Your task to perform on an android device: turn on notifications settings in the gmail app Image 0: 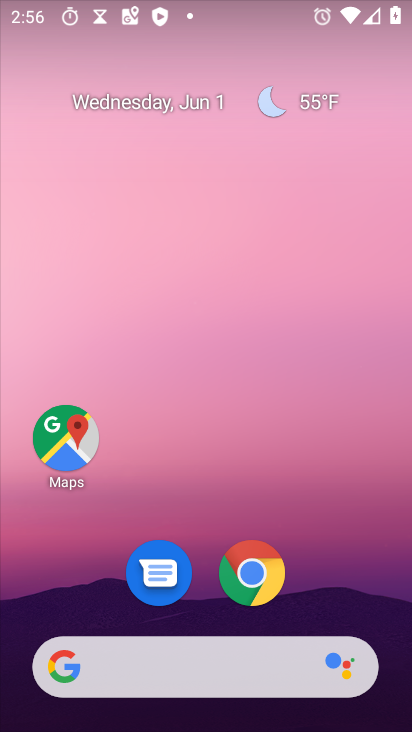
Step 0: drag from (343, 555) to (349, 19)
Your task to perform on an android device: turn on notifications settings in the gmail app Image 1: 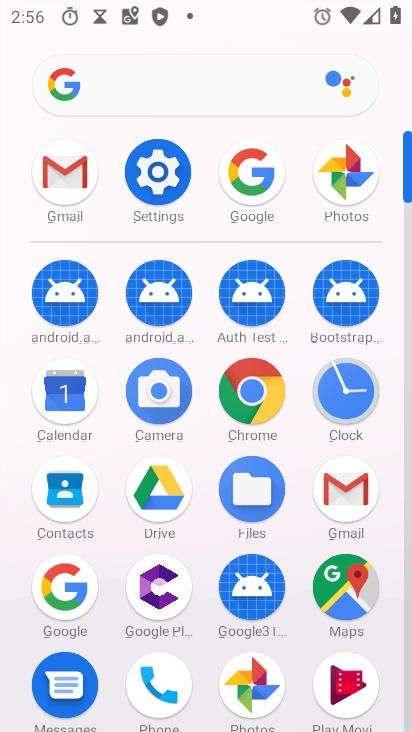
Step 1: click (353, 504)
Your task to perform on an android device: turn on notifications settings in the gmail app Image 2: 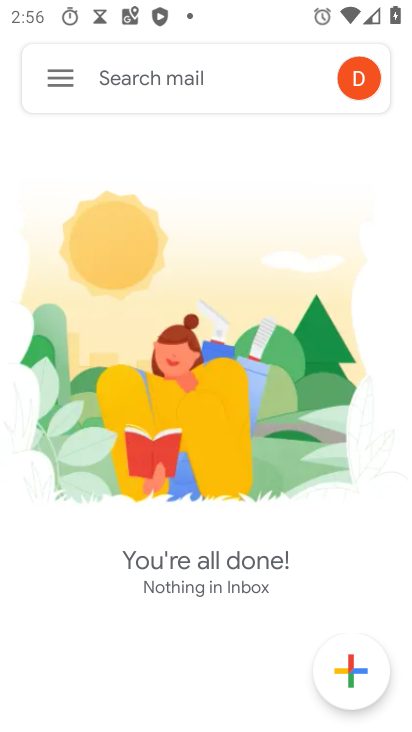
Step 2: click (55, 66)
Your task to perform on an android device: turn on notifications settings in the gmail app Image 3: 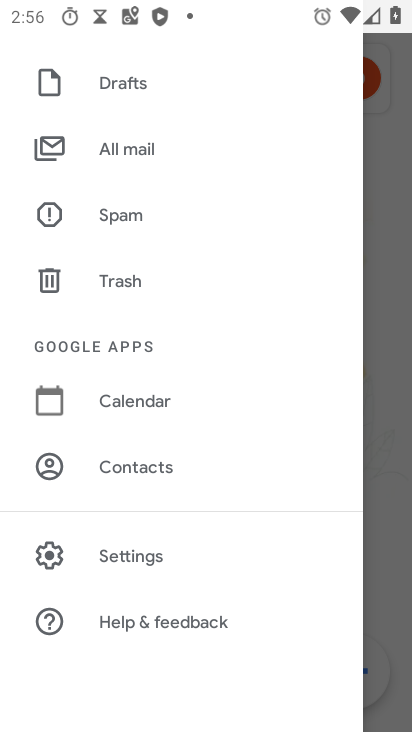
Step 3: click (155, 539)
Your task to perform on an android device: turn on notifications settings in the gmail app Image 4: 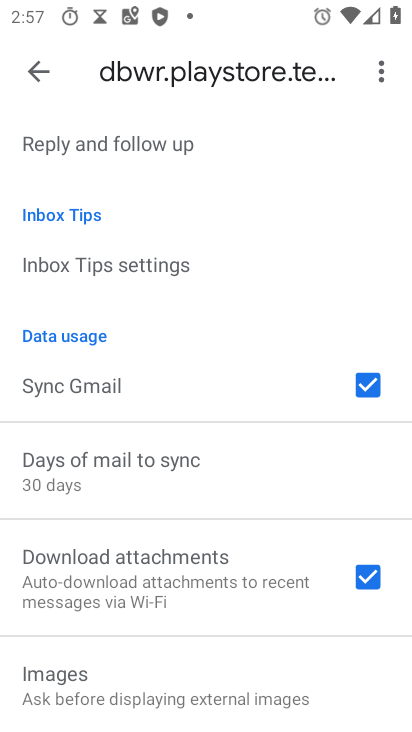
Step 4: drag from (207, 339) to (249, 644)
Your task to perform on an android device: turn on notifications settings in the gmail app Image 5: 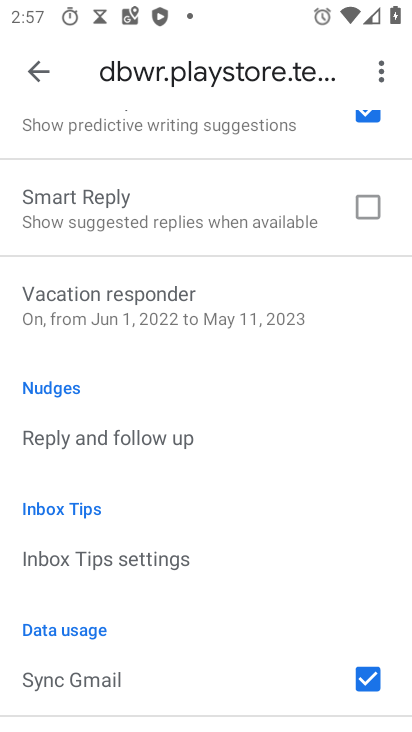
Step 5: drag from (145, 289) to (192, 615)
Your task to perform on an android device: turn on notifications settings in the gmail app Image 6: 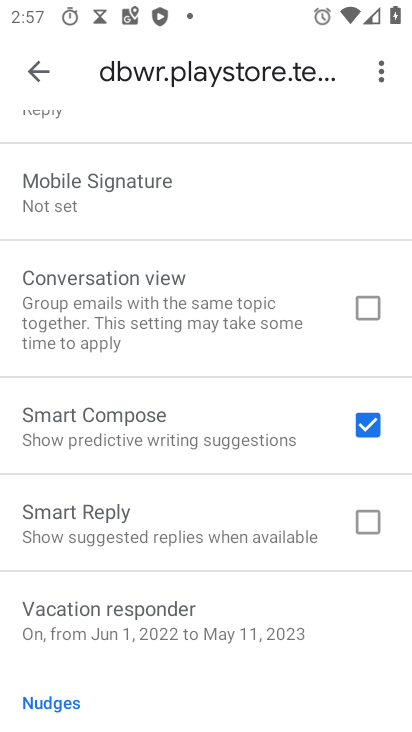
Step 6: drag from (203, 226) to (229, 587)
Your task to perform on an android device: turn on notifications settings in the gmail app Image 7: 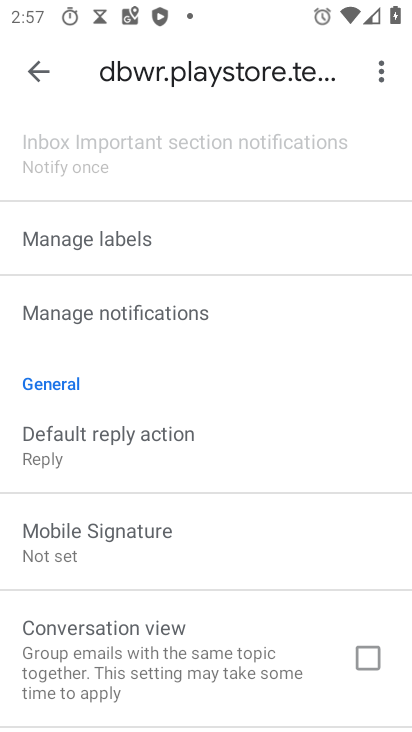
Step 7: drag from (252, 262) to (282, 552)
Your task to perform on an android device: turn on notifications settings in the gmail app Image 8: 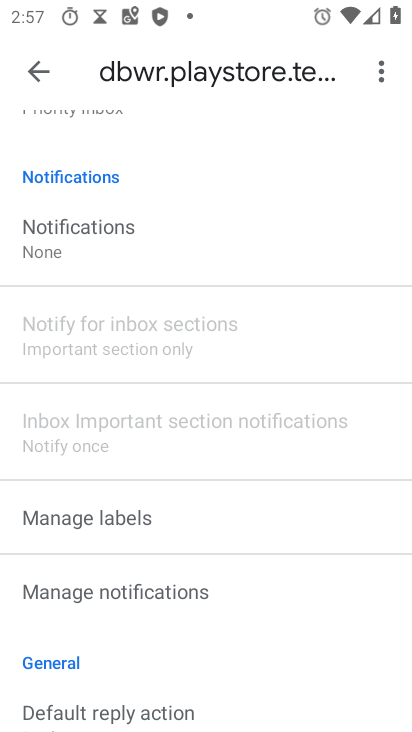
Step 8: click (97, 225)
Your task to perform on an android device: turn on notifications settings in the gmail app Image 9: 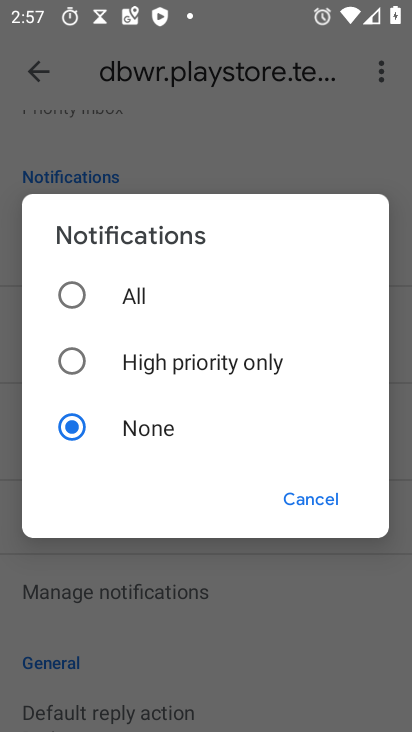
Step 9: click (99, 307)
Your task to perform on an android device: turn on notifications settings in the gmail app Image 10: 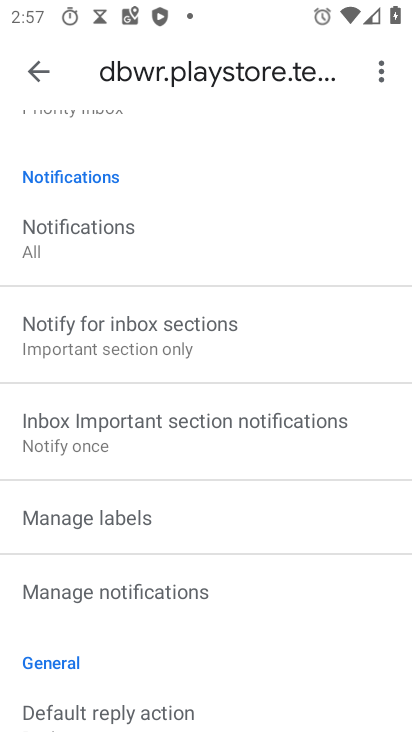
Step 10: task complete